Your task to perform on an android device: change alarm snooze length Image 0: 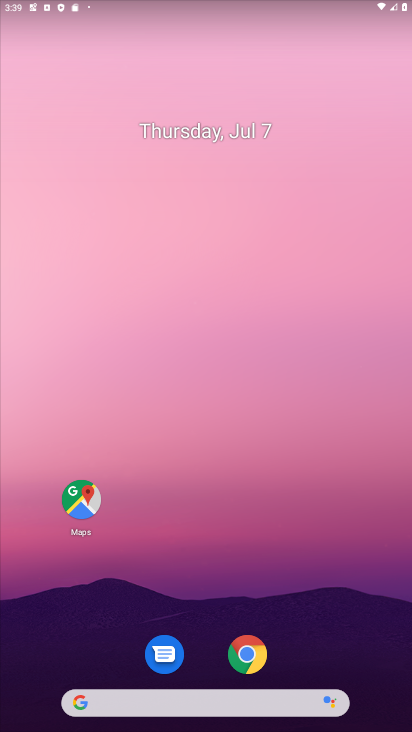
Step 0: drag from (326, 419) to (326, 127)
Your task to perform on an android device: change alarm snooze length Image 1: 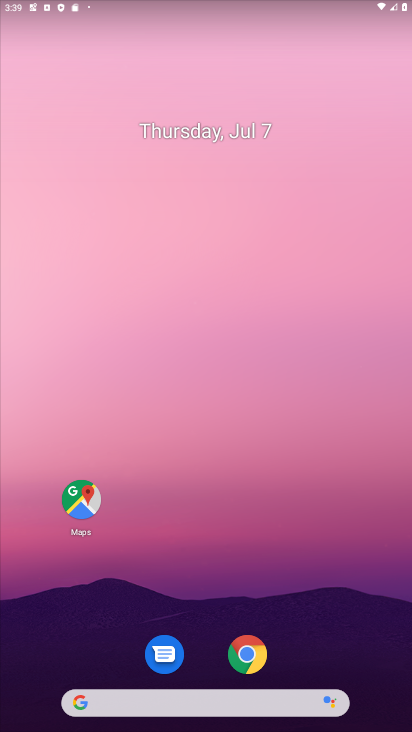
Step 1: drag from (345, 676) to (337, 127)
Your task to perform on an android device: change alarm snooze length Image 2: 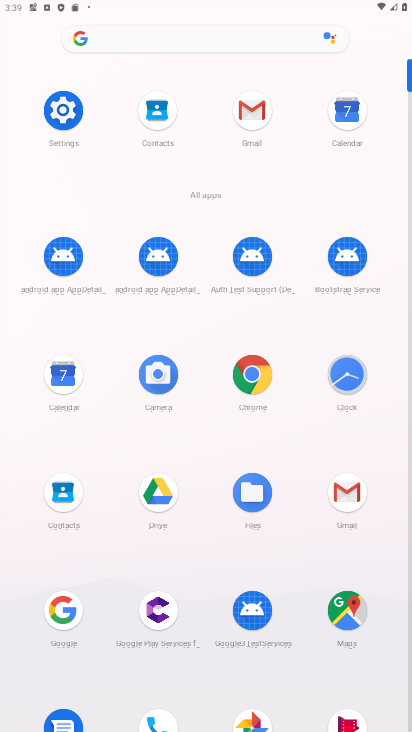
Step 2: click (340, 375)
Your task to perform on an android device: change alarm snooze length Image 3: 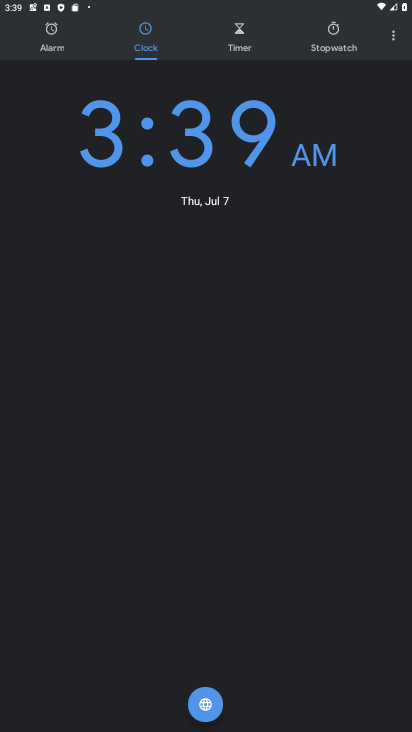
Step 3: click (393, 38)
Your task to perform on an android device: change alarm snooze length Image 4: 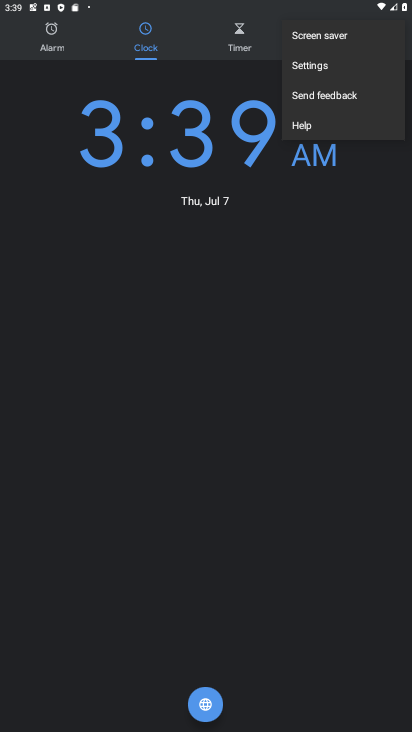
Step 4: click (336, 68)
Your task to perform on an android device: change alarm snooze length Image 5: 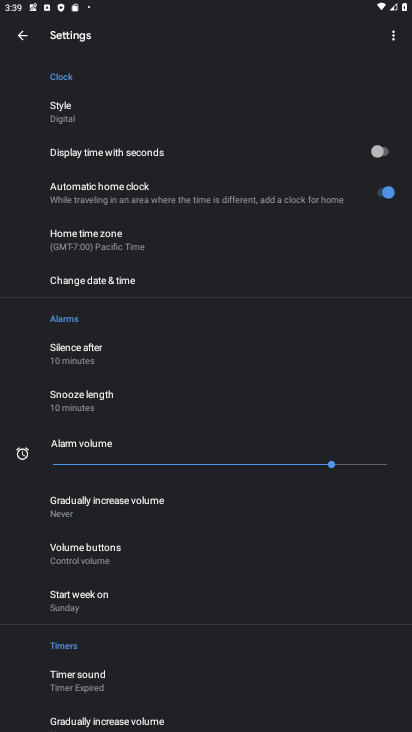
Step 5: click (106, 408)
Your task to perform on an android device: change alarm snooze length Image 6: 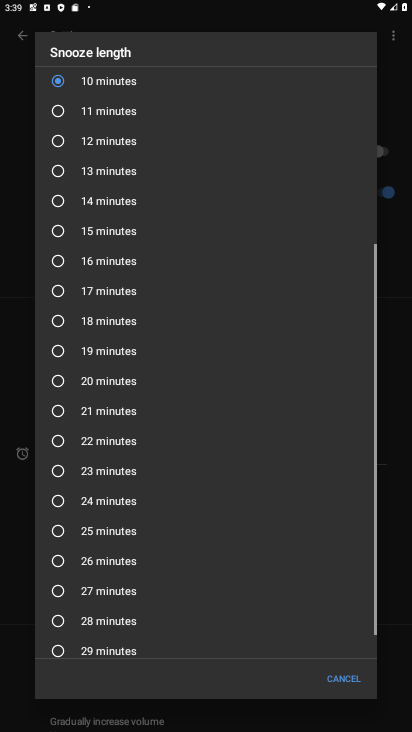
Step 6: click (131, 123)
Your task to perform on an android device: change alarm snooze length Image 7: 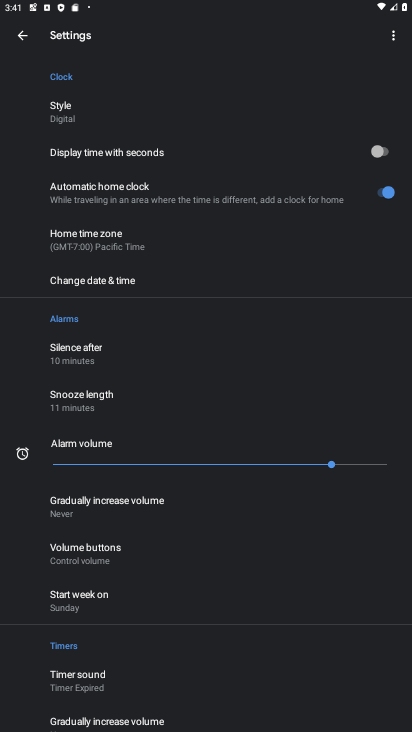
Step 7: task complete